Your task to perform on an android device: install app "Pinterest" Image 0: 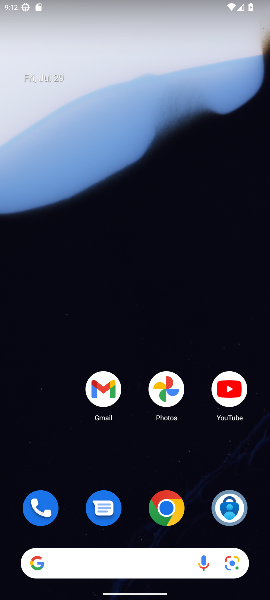
Step 0: drag from (167, 557) to (140, 9)
Your task to perform on an android device: install app "Pinterest" Image 1: 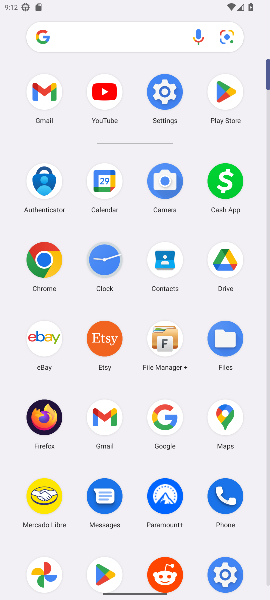
Step 1: click (107, 577)
Your task to perform on an android device: install app "Pinterest" Image 2: 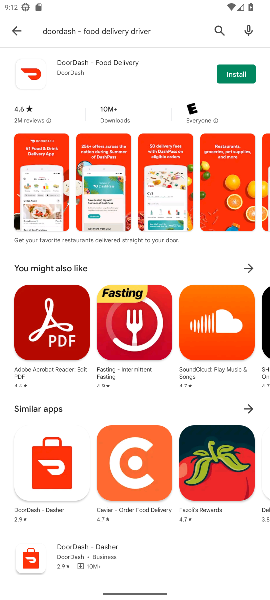
Step 2: click (224, 31)
Your task to perform on an android device: install app "Pinterest" Image 3: 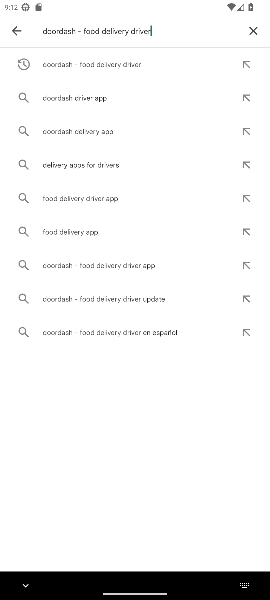
Step 3: click (258, 31)
Your task to perform on an android device: install app "Pinterest" Image 4: 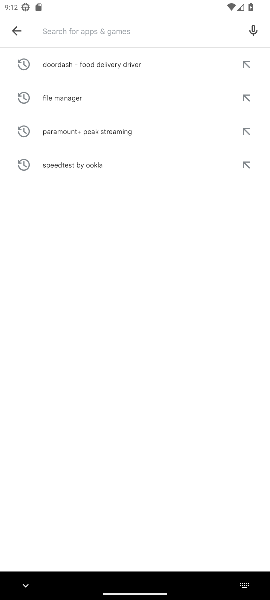
Step 4: type "p interest"
Your task to perform on an android device: install app "Pinterest" Image 5: 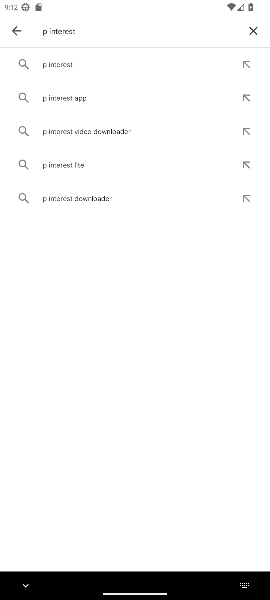
Step 5: click (61, 66)
Your task to perform on an android device: install app "Pinterest" Image 6: 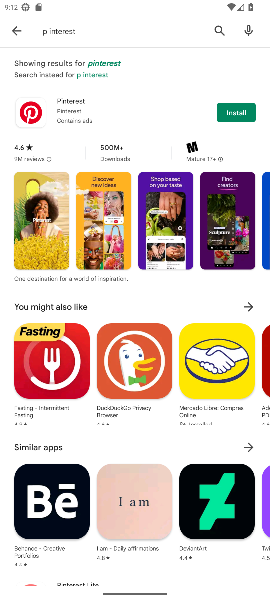
Step 6: click (240, 113)
Your task to perform on an android device: install app "Pinterest" Image 7: 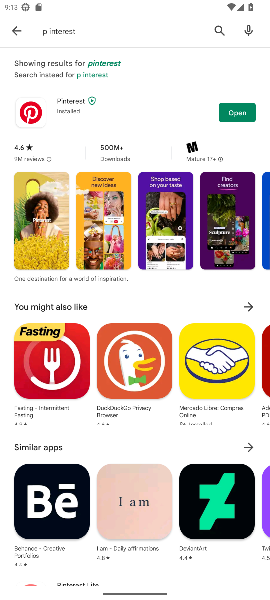
Step 7: task complete